Your task to perform on an android device: Open settings Image 0: 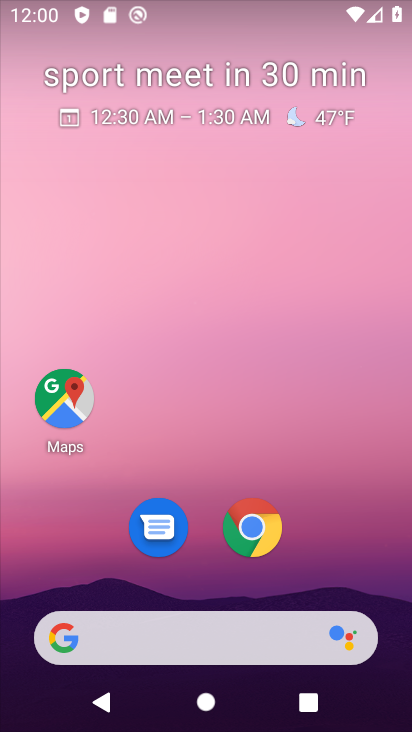
Step 0: drag from (184, 580) to (275, 43)
Your task to perform on an android device: Open settings Image 1: 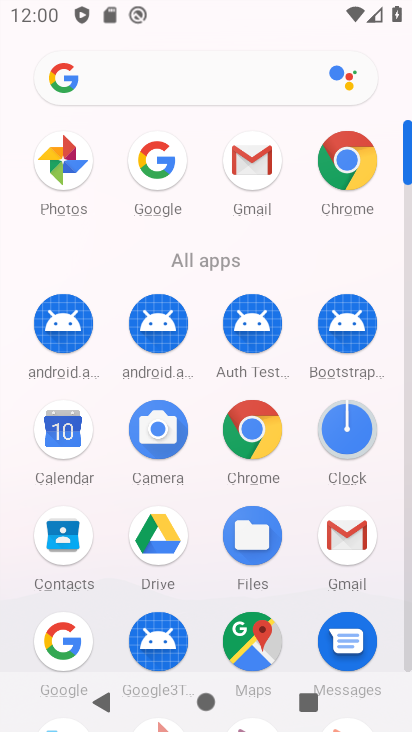
Step 1: drag from (146, 579) to (208, 270)
Your task to perform on an android device: Open settings Image 2: 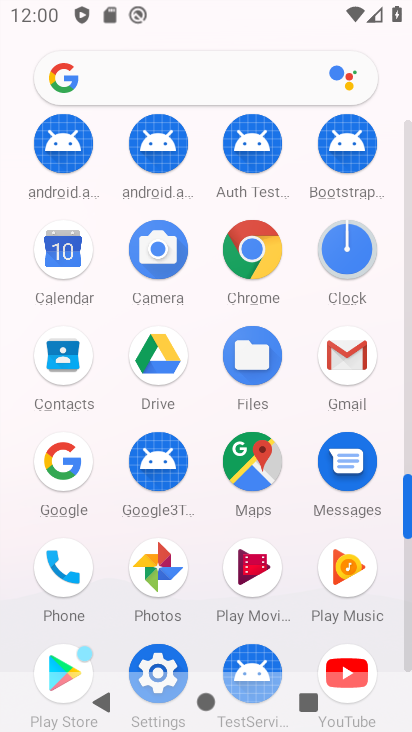
Step 2: click (157, 662)
Your task to perform on an android device: Open settings Image 3: 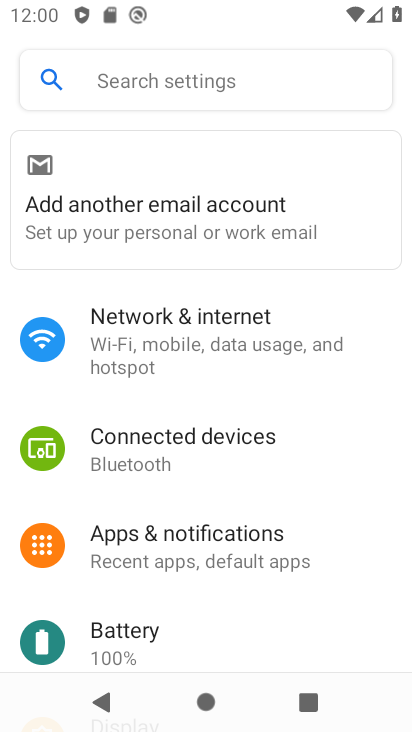
Step 3: task complete